Your task to perform on an android device: see creations saved in the google photos Image 0: 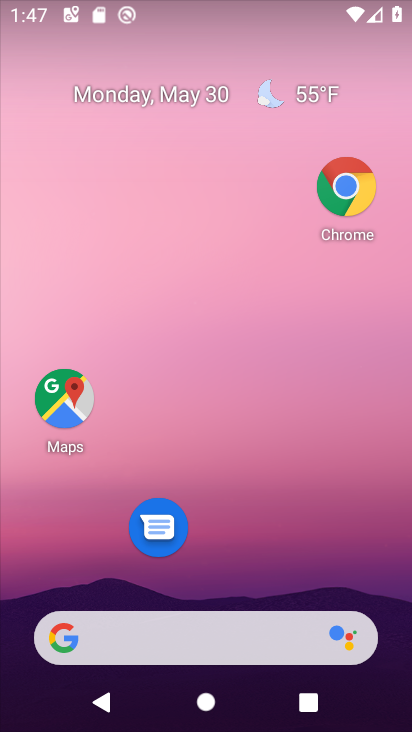
Step 0: drag from (192, 568) to (239, 118)
Your task to perform on an android device: see creations saved in the google photos Image 1: 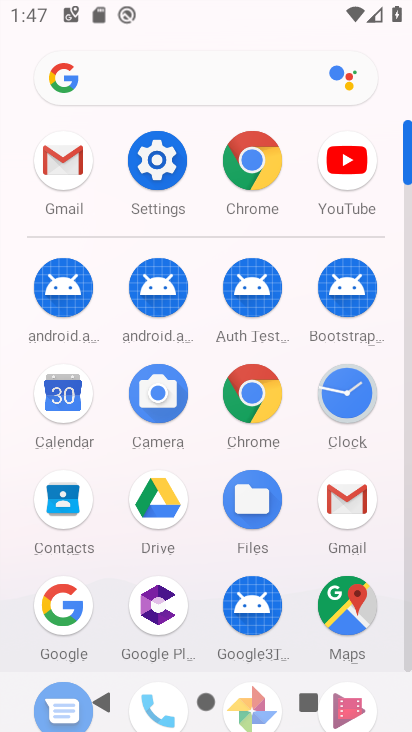
Step 1: drag from (196, 616) to (208, 122)
Your task to perform on an android device: see creations saved in the google photos Image 2: 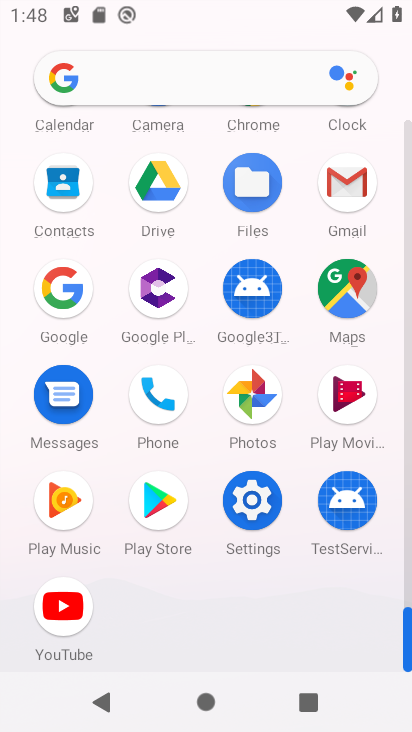
Step 2: click (237, 392)
Your task to perform on an android device: see creations saved in the google photos Image 3: 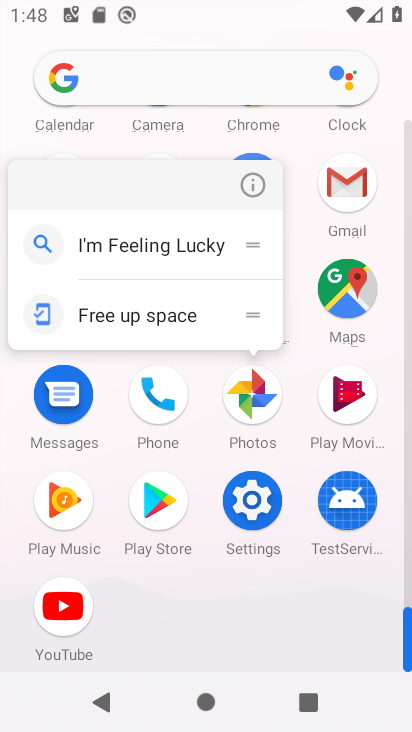
Step 3: click (252, 178)
Your task to perform on an android device: see creations saved in the google photos Image 4: 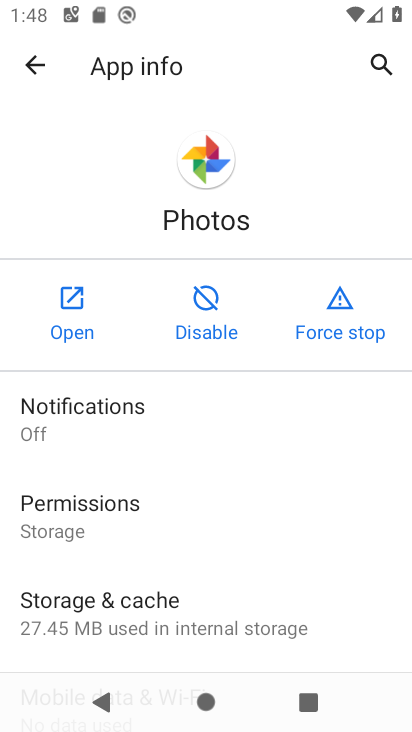
Step 4: click (74, 304)
Your task to perform on an android device: see creations saved in the google photos Image 5: 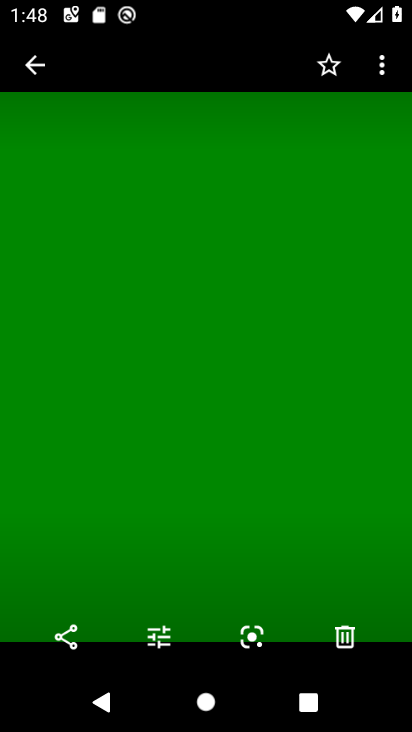
Step 5: drag from (314, 463) to (4, 472)
Your task to perform on an android device: see creations saved in the google photos Image 6: 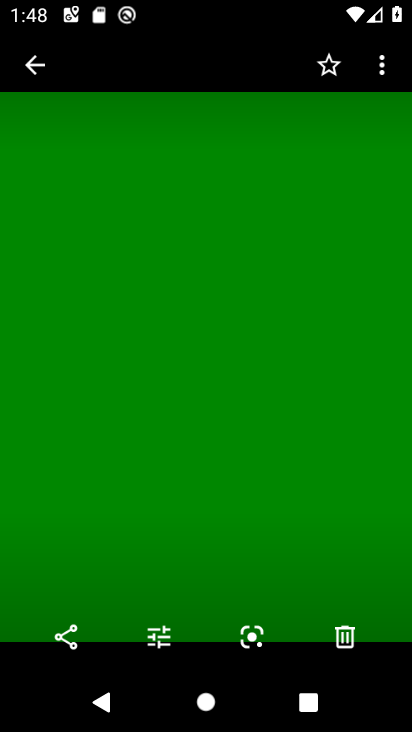
Step 6: drag from (346, 492) to (15, 628)
Your task to perform on an android device: see creations saved in the google photos Image 7: 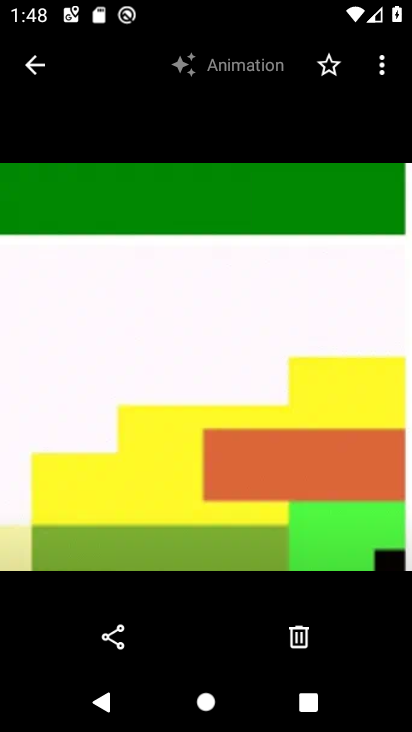
Step 7: click (30, 75)
Your task to perform on an android device: see creations saved in the google photos Image 8: 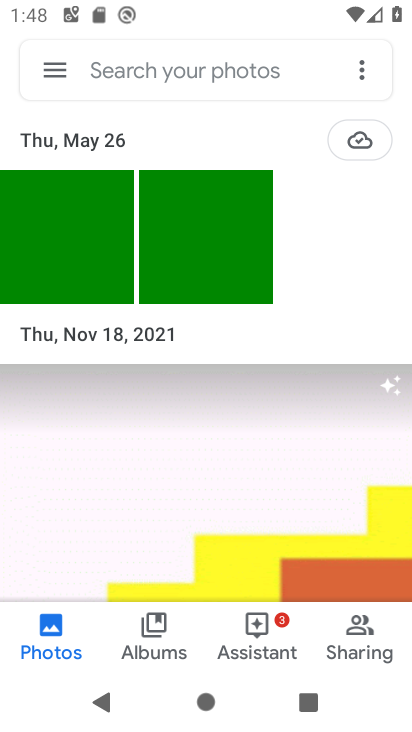
Step 8: drag from (204, 507) to (337, 58)
Your task to perform on an android device: see creations saved in the google photos Image 9: 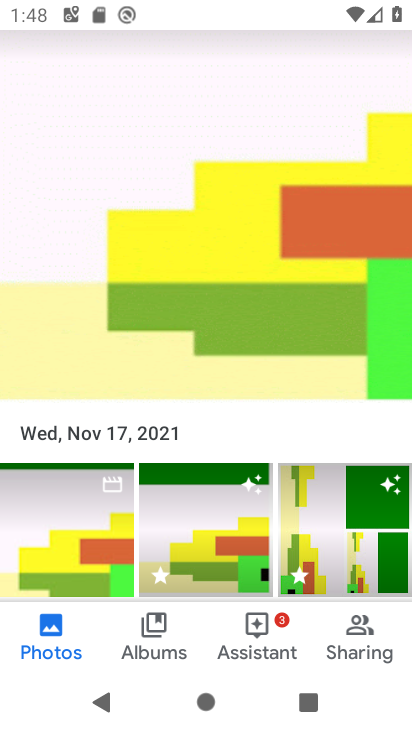
Step 9: drag from (208, 557) to (278, 200)
Your task to perform on an android device: see creations saved in the google photos Image 10: 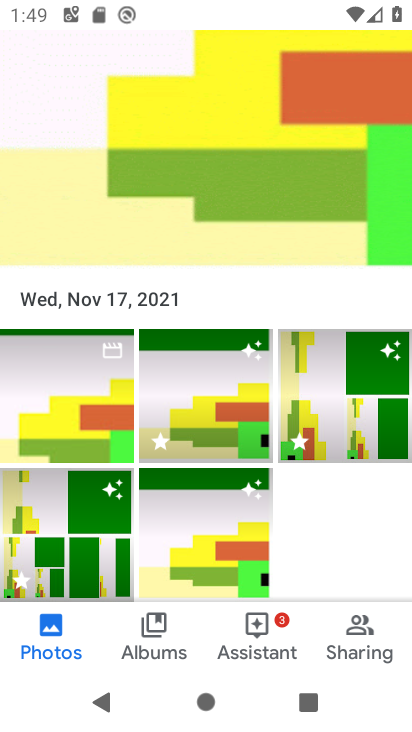
Step 10: drag from (181, 79) to (259, 708)
Your task to perform on an android device: see creations saved in the google photos Image 11: 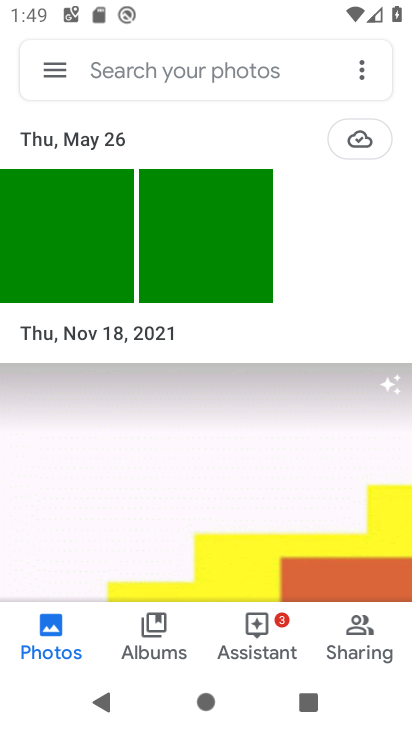
Step 11: click (183, 70)
Your task to perform on an android device: see creations saved in the google photos Image 12: 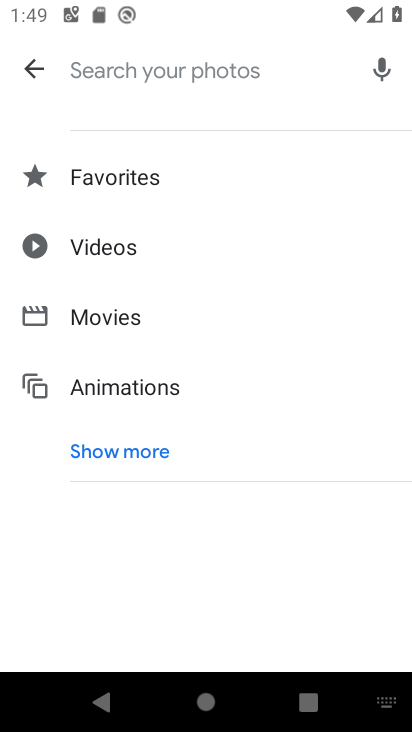
Step 12: click (107, 451)
Your task to perform on an android device: see creations saved in the google photos Image 13: 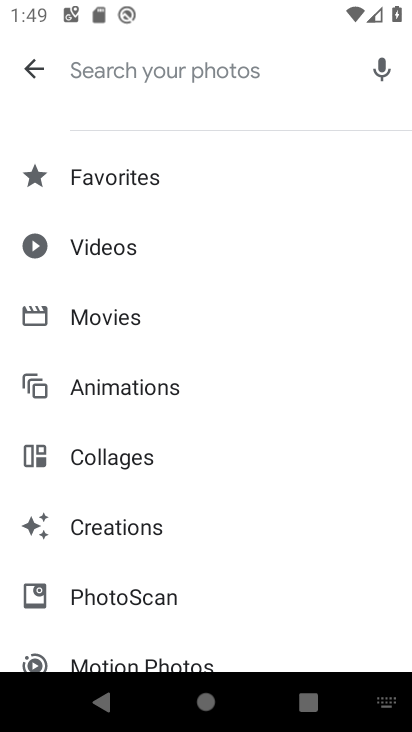
Step 13: drag from (133, 443) to (206, 84)
Your task to perform on an android device: see creations saved in the google photos Image 14: 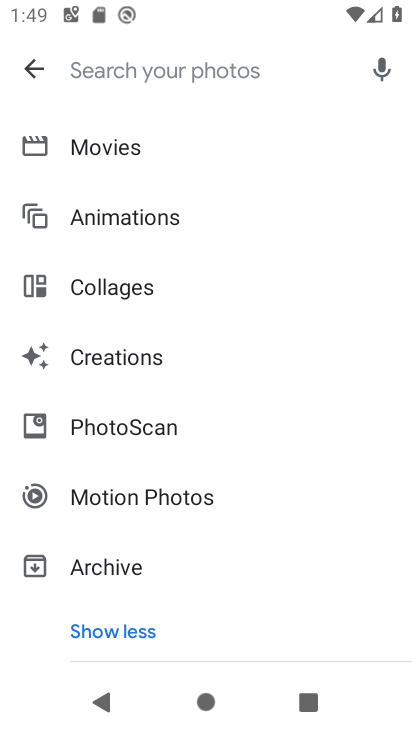
Step 14: click (133, 366)
Your task to perform on an android device: see creations saved in the google photos Image 15: 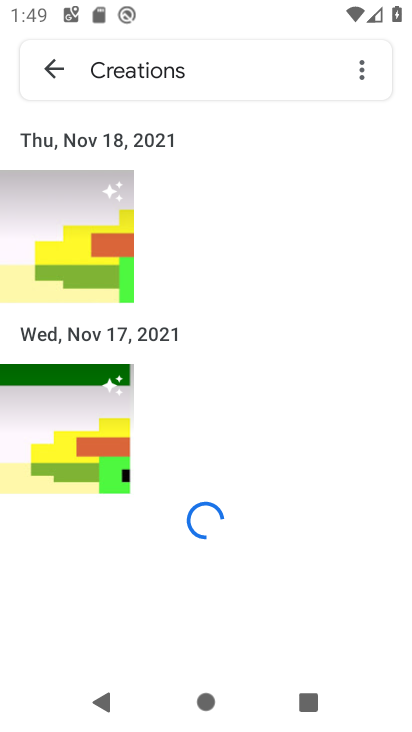
Step 15: click (83, 454)
Your task to perform on an android device: see creations saved in the google photos Image 16: 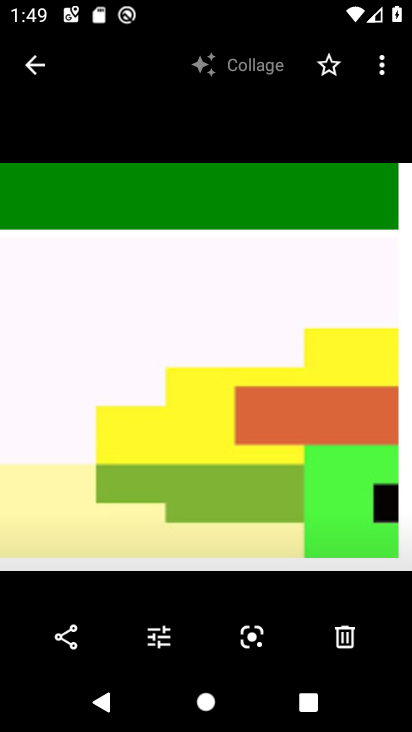
Step 16: task complete